Your task to perform on an android device: change notification settings in the gmail app Image 0: 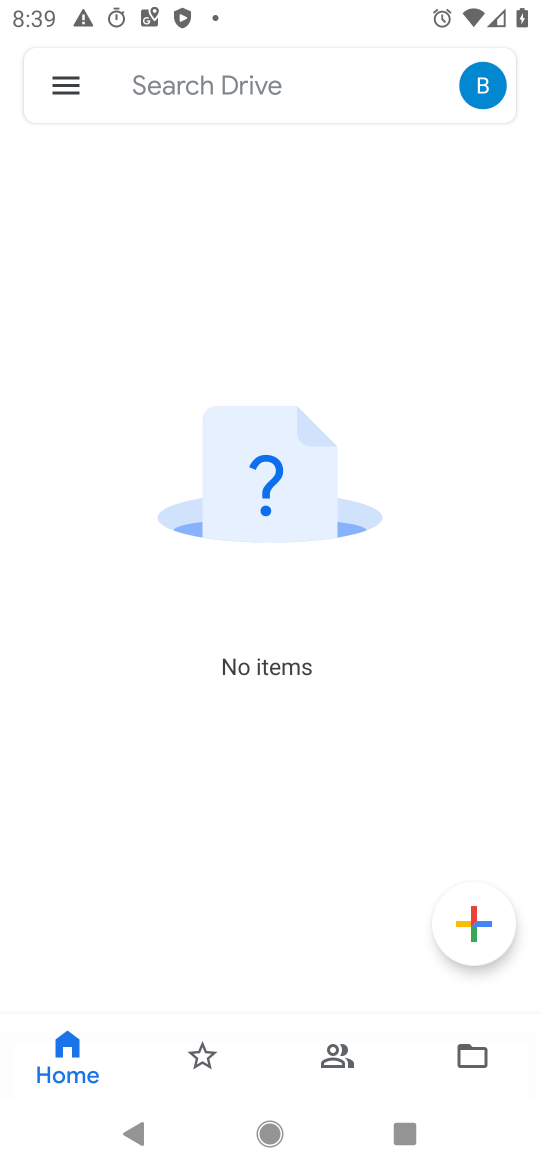
Step 0: press home button
Your task to perform on an android device: change notification settings in the gmail app Image 1: 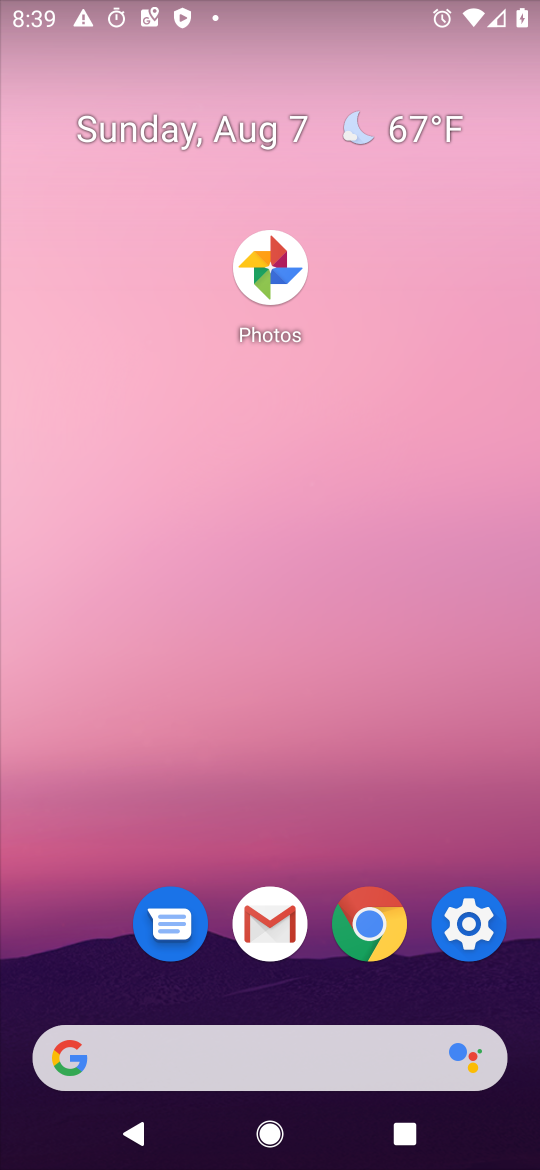
Step 1: drag from (306, 1099) to (441, 356)
Your task to perform on an android device: change notification settings in the gmail app Image 2: 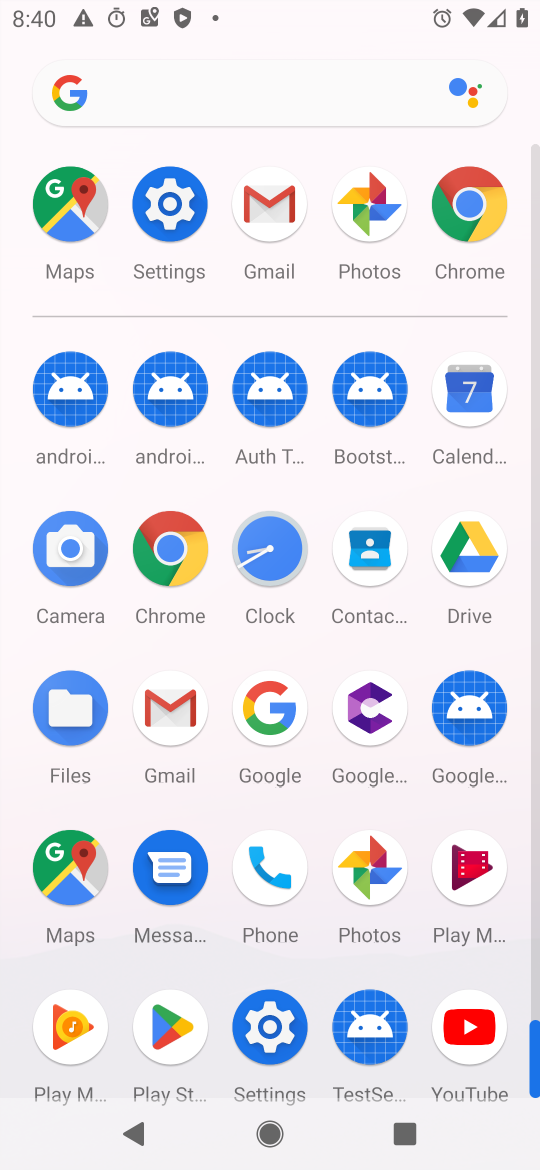
Step 2: click (289, 213)
Your task to perform on an android device: change notification settings in the gmail app Image 3: 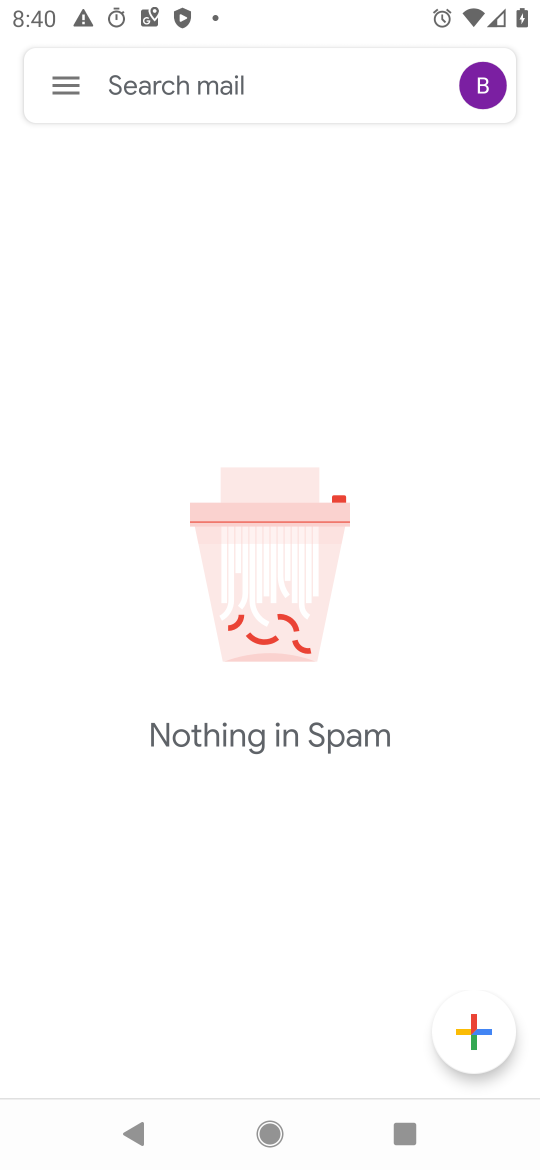
Step 3: click (66, 95)
Your task to perform on an android device: change notification settings in the gmail app Image 4: 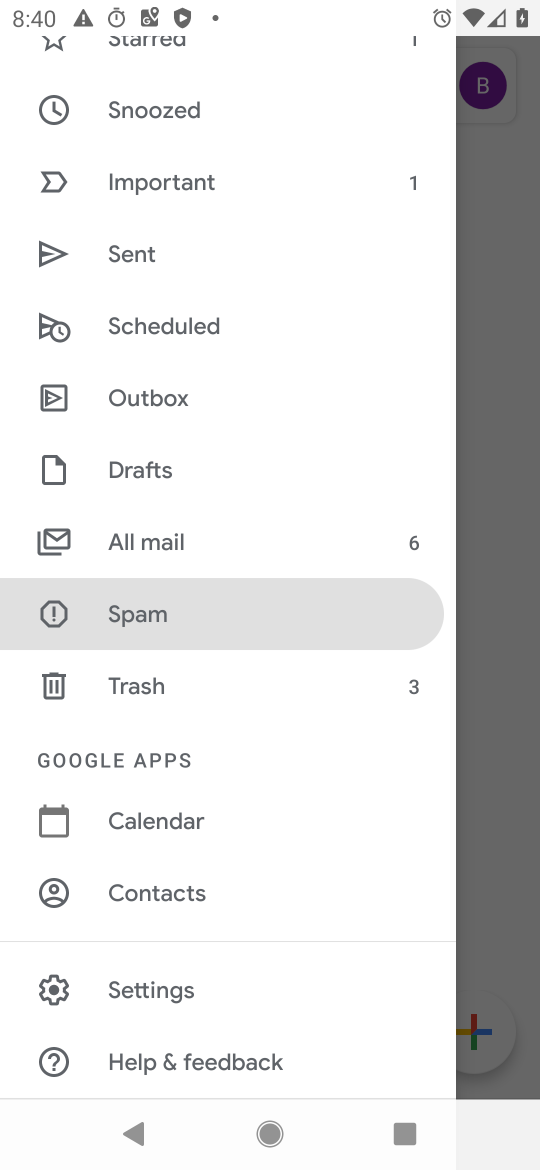
Step 4: click (160, 988)
Your task to perform on an android device: change notification settings in the gmail app Image 5: 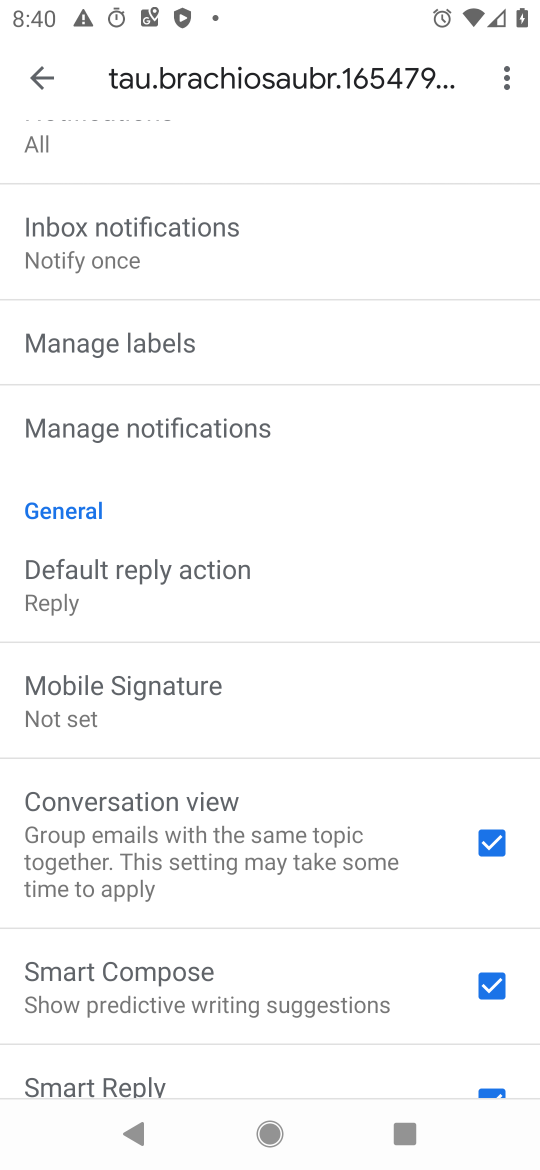
Step 5: click (175, 262)
Your task to perform on an android device: change notification settings in the gmail app Image 6: 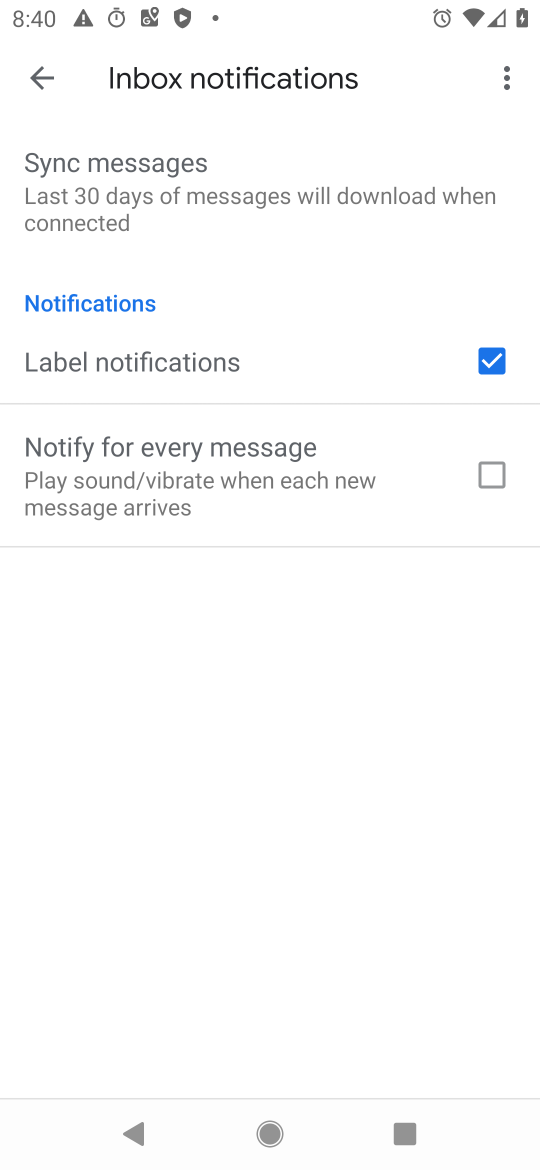
Step 6: task complete